Your task to perform on an android device: Open Android settings Image 0: 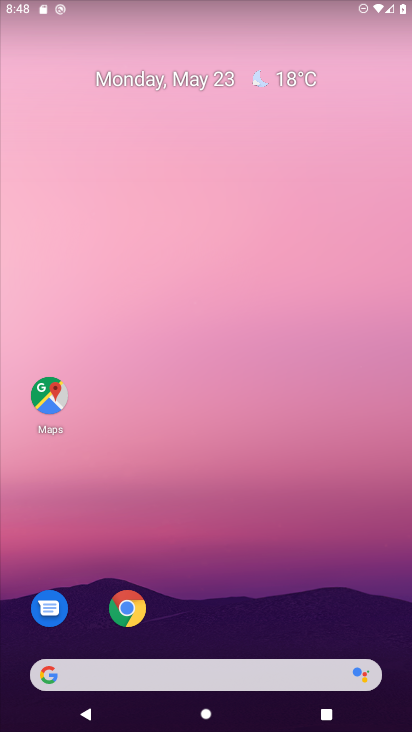
Step 0: drag from (237, 726) to (236, 672)
Your task to perform on an android device: Open Android settings Image 1: 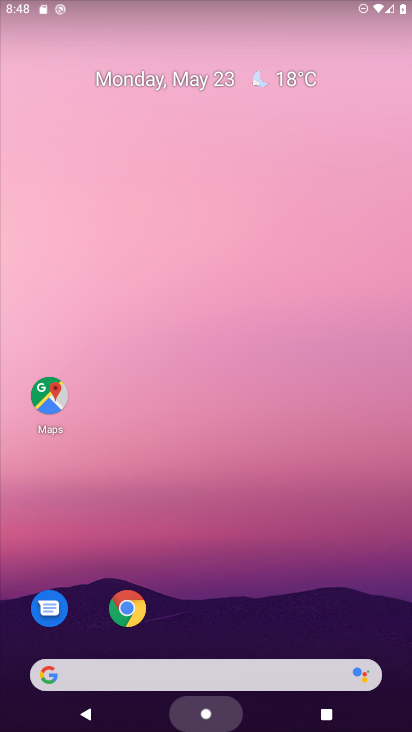
Step 1: drag from (235, 422) to (230, 34)
Your task to perform on an android device: Open Android settings Image 2: 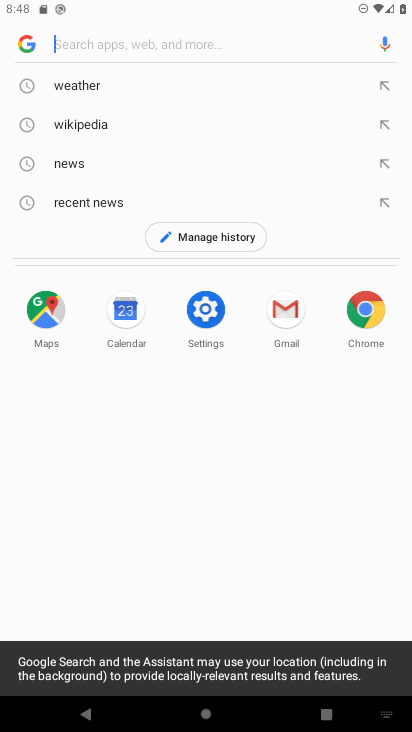
Step 2: press home button
Your task to perform on an android device: Open Android settings Image 3: 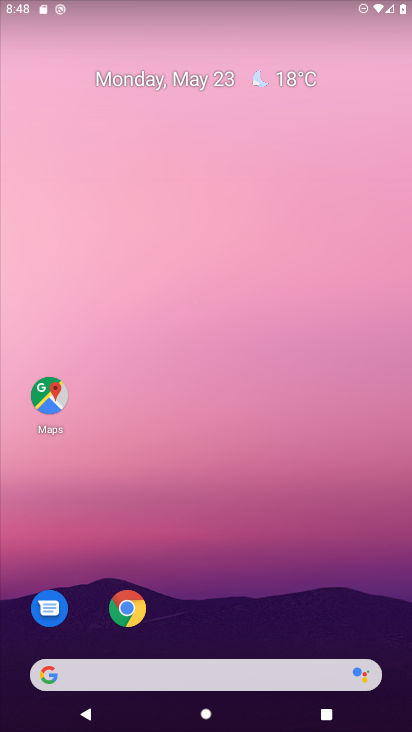
Step 3: drag from (224, 727) to (227, 77)
Your task to perform on an android device: Open Android settings Image 4: 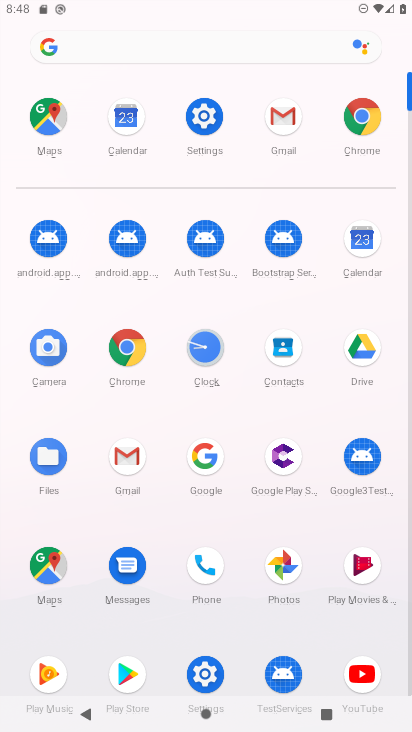
Step 4: click (198, 119)
Your task to perform on an android device: Open Android settings Image 5: 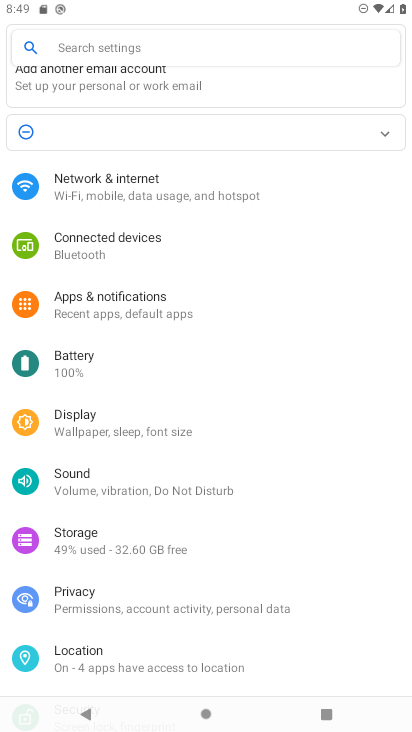
Step 5: task complete